Your task to perform on an android device: Open Google Maps and go to "Timeline" Image 0: 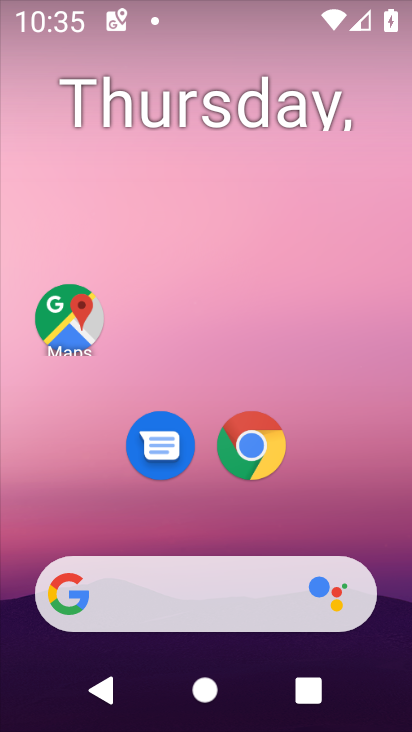
Step 0: drag from (399, 587) to (323, 56)
Your task to perform on an android device: Open Google Maps and go to "Timeline" Image 1: 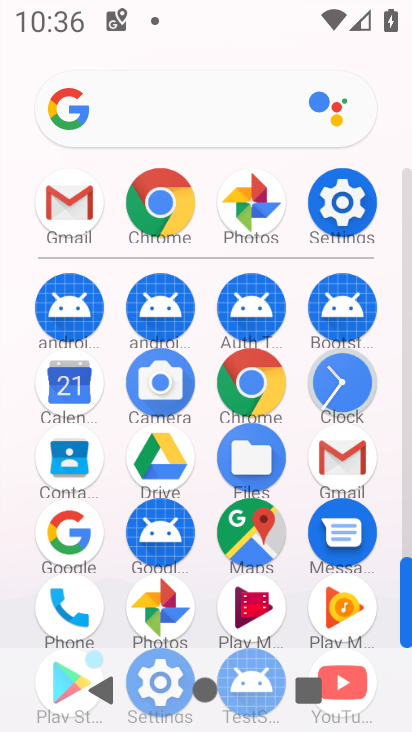
Step 1: click (255, 533)
Your task to perform on an android device: Open Google Maps and go to "Timeline" Image 2: 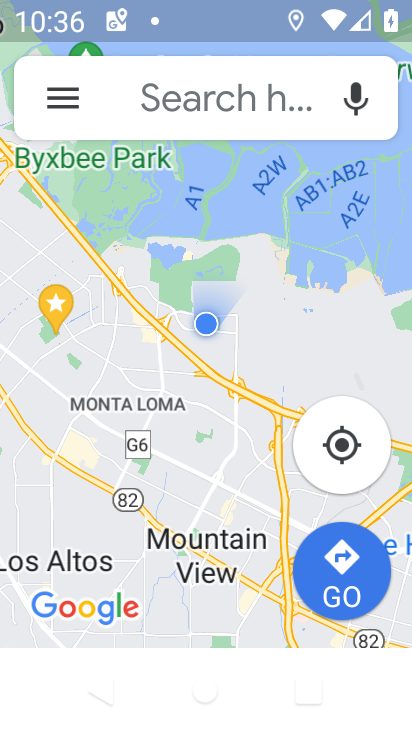
Step 2: click (69, 100)
Your task to perform on an android device: Open Google Maps and go to "Timeline" Image 3: 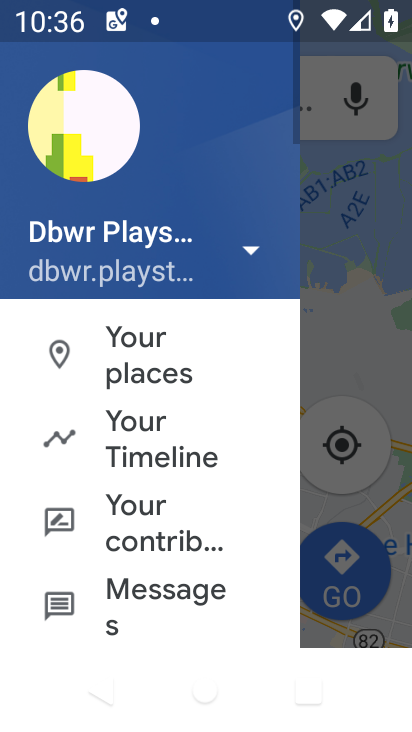
Step 3: click (157, 438)
Your task to perform on an android device: Open Google Maps and go to "Timeline" Image 4: 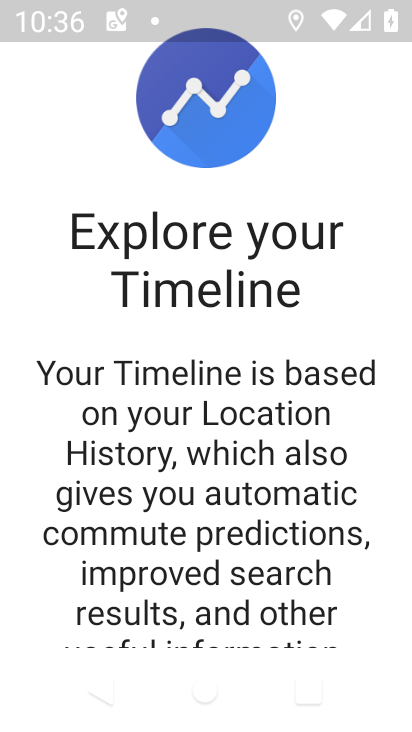
Step 4: task complete